Your task to perform on an android device: Open ESPN.com Image 0: 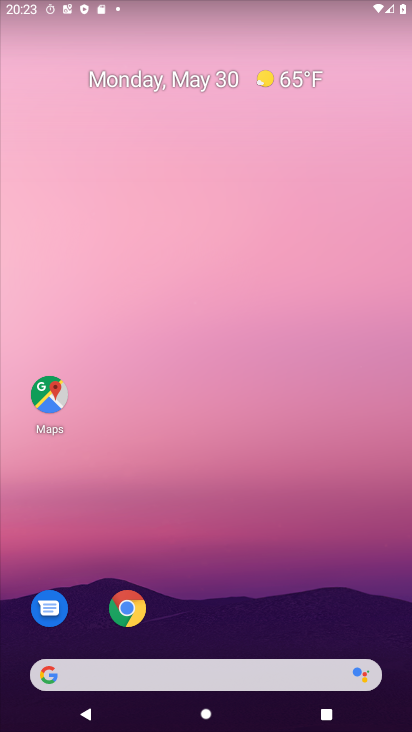
Step 0: click (134, 601)
Your task to perform on an android device: Open ESPN.com Image 1: 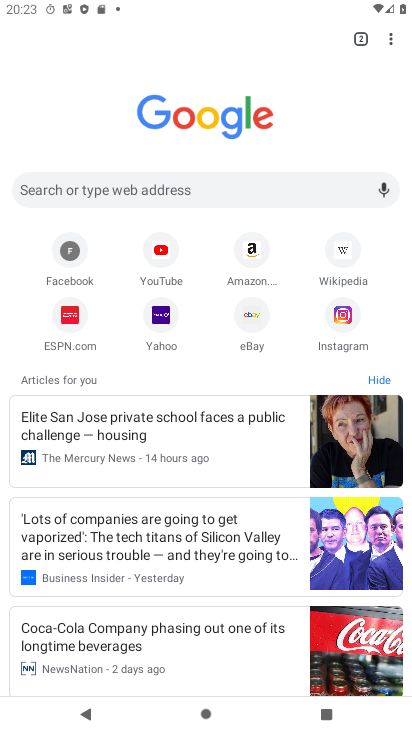
Step 1: click (71, 309)
Your task to perform on an android device: Open ESPN.com Image 2: 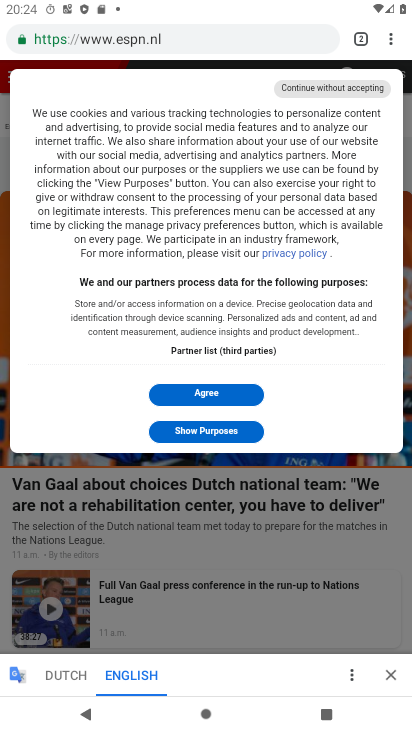
Step 2: task complete